Your task to perform on an android device: Turn on the flashlight Image 0: 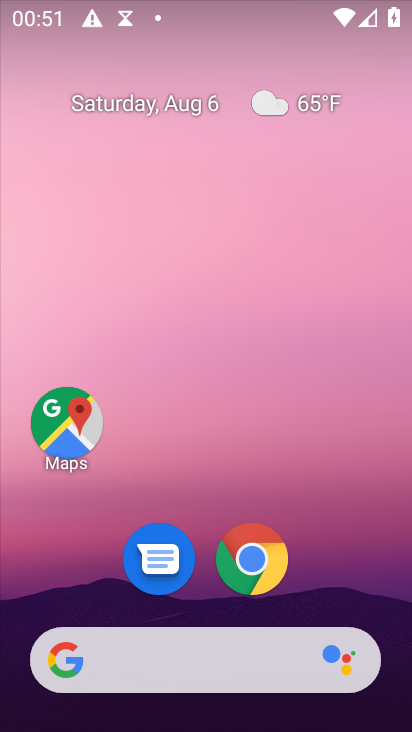
Step 0: drag from (260, 7) to (281, 118)
Your task to perform on an android device: Turn on the flashlight Image 1: 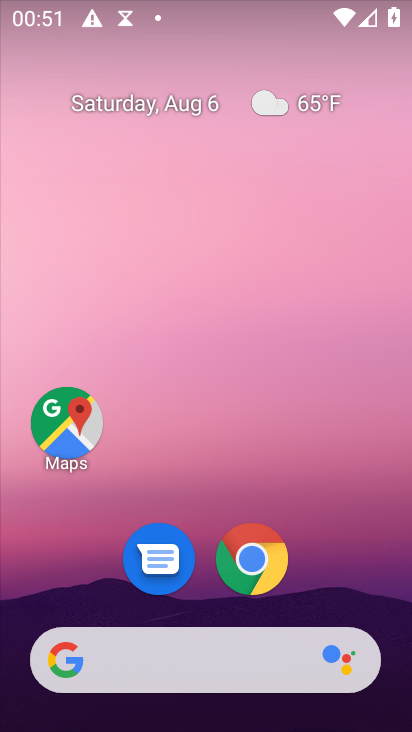
Step 1: drag from (212, 8) to (388, 690)
Your task to perform on an android device: Turn on the flashlight Image 2: 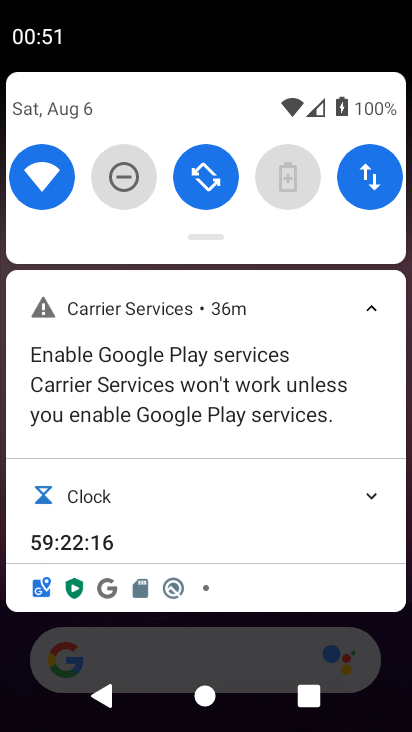
Step 2: drag from (240, 203) to (256, 478)
Your task to perform on an android device: Turn on the flashlight Image 3: 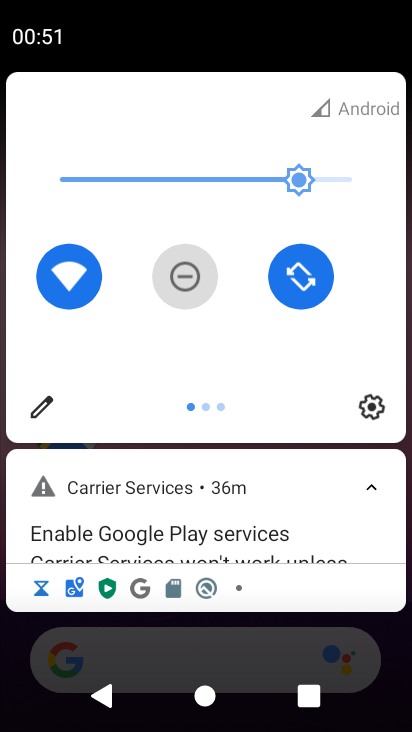
Step 3: drag from (256, 478) to (253, 564)
Your task to perform on an android device: Turn on the flashlight Image 4: 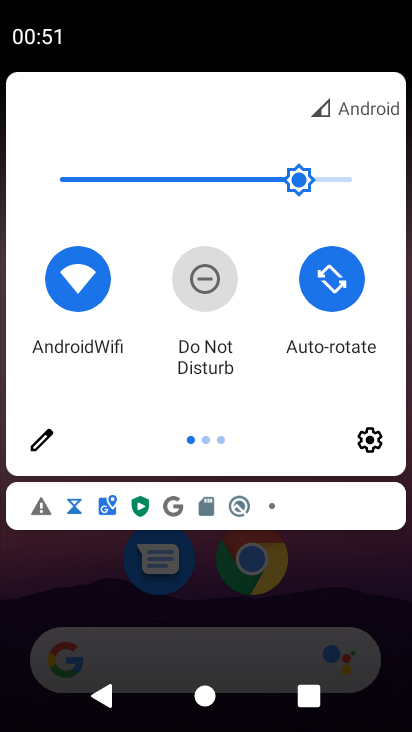
Step 4: drag from (315, 398) to (51, 380)
Your task to perform on an android device: Turn on the flashlight Image 5: 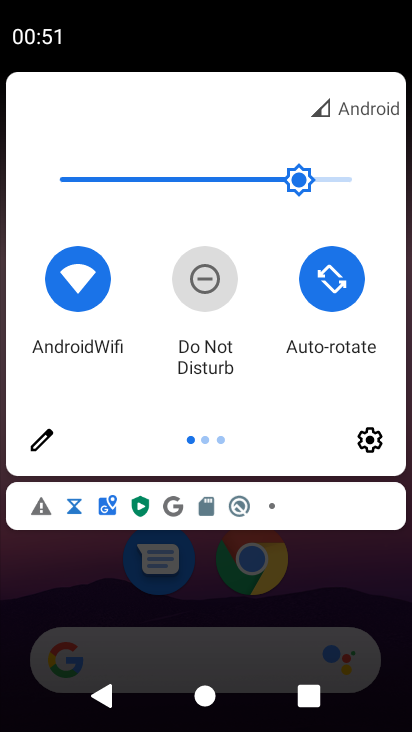
Step 5: drag from (340, 402) to (9, 382)
Your task to perform on an android device: Turn on the flashlight Image 6: 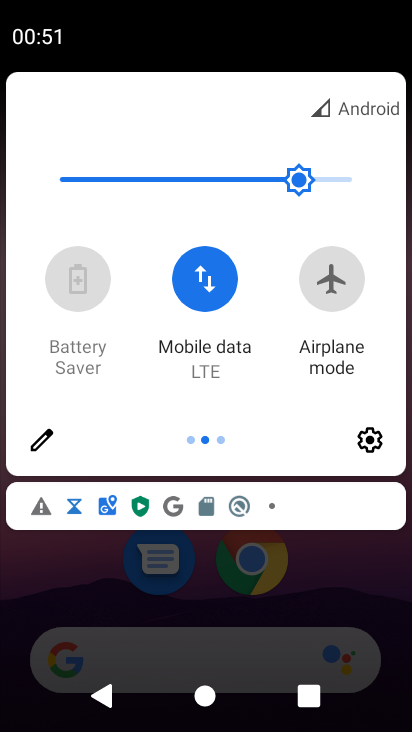
Step 6: drag from (373, 401) to (19, 393)
Your task to perform on an android device: Turn on the flashlight Image 7: 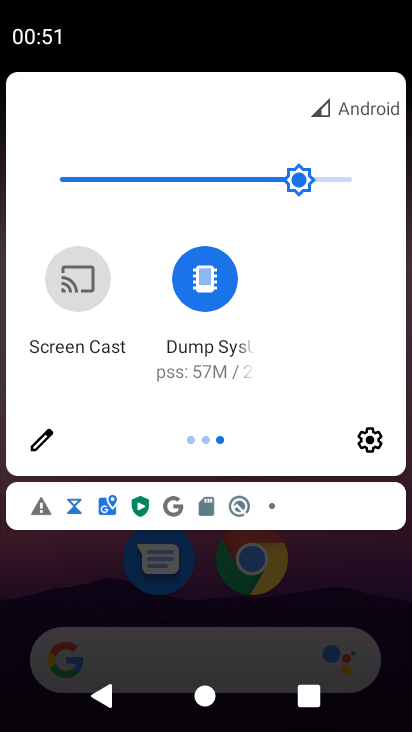
Step 7: click (46, 436)
Your task to perform on an android device: Turn on the flashlight Image 8: 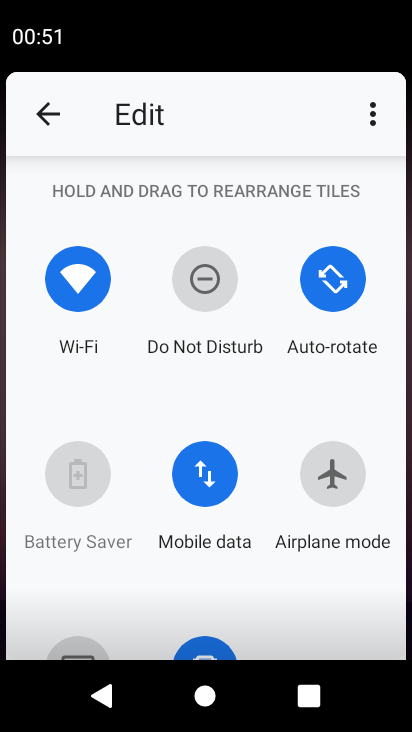
Step 8: task complete